Your task to perform on an android device: open chrome and create a bookmark for the current page Image 0: 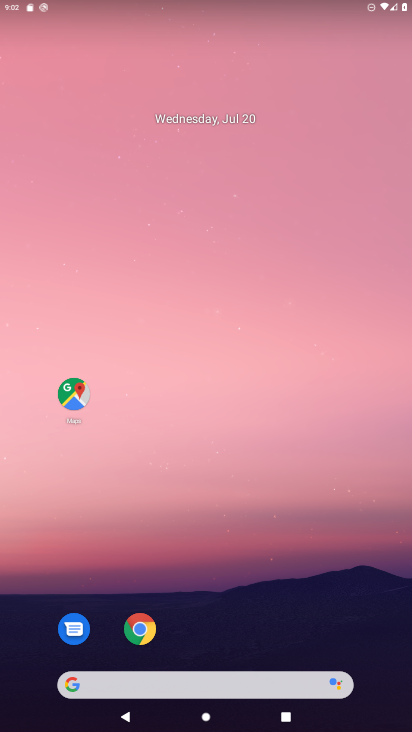
Step 0: click (141, 630)
Your task to perform on an android device: open chrome and create a bookmark for the current page Image 1: 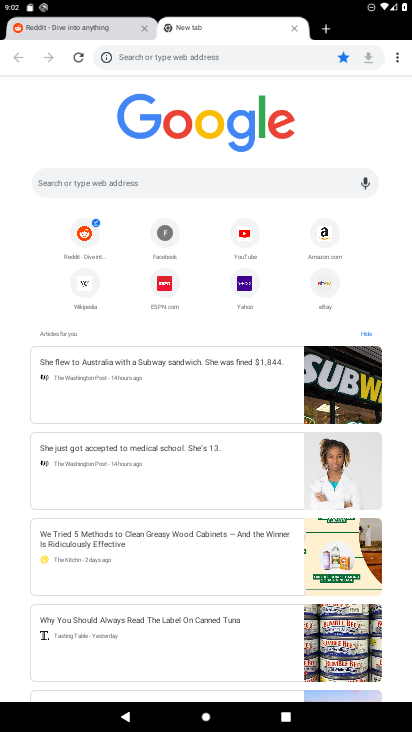
Step 1: task complete